Your task to perform on an android device: toggle notifications settings in the gmail app Image 0: 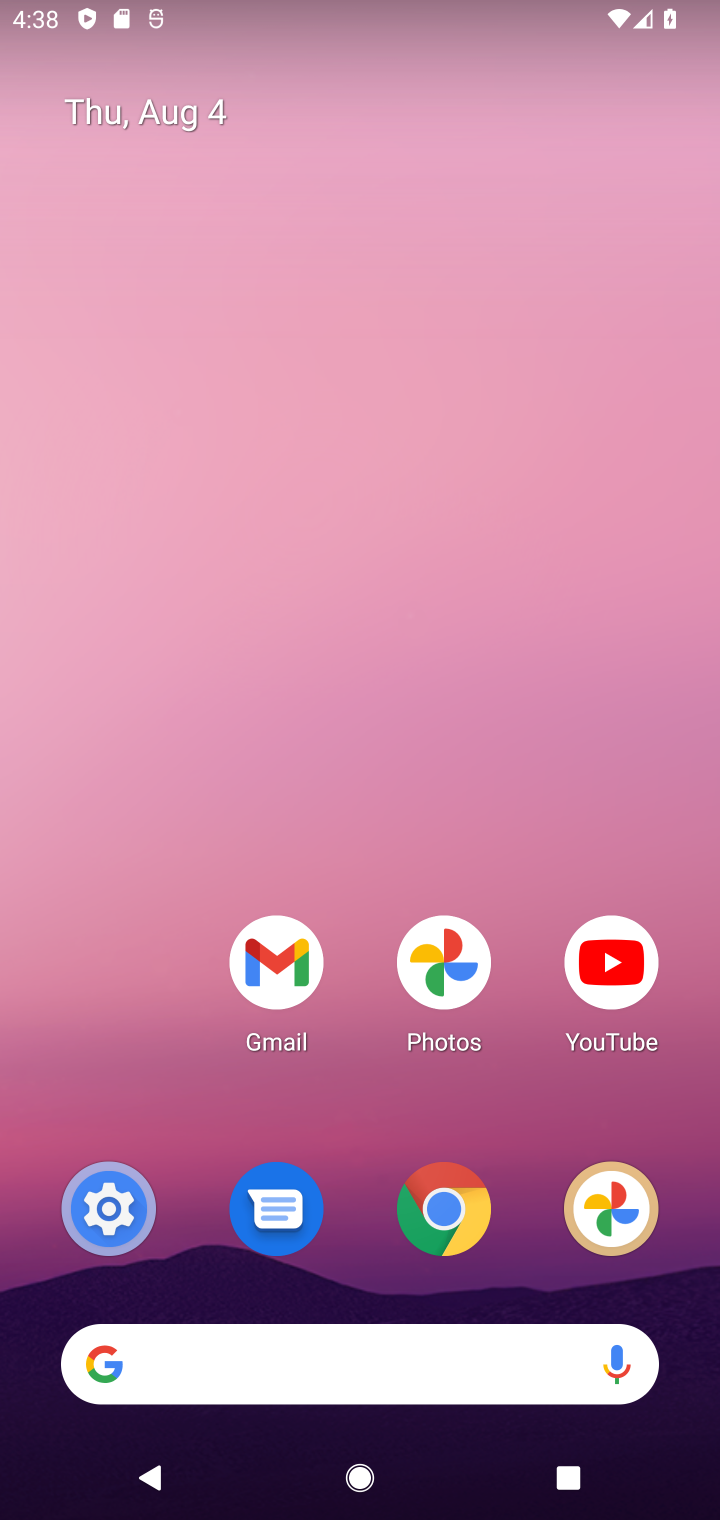
Step 0: click (273, 994)
Your task to perform on an android device: toggle notifications settings in the gmail app Image 1: 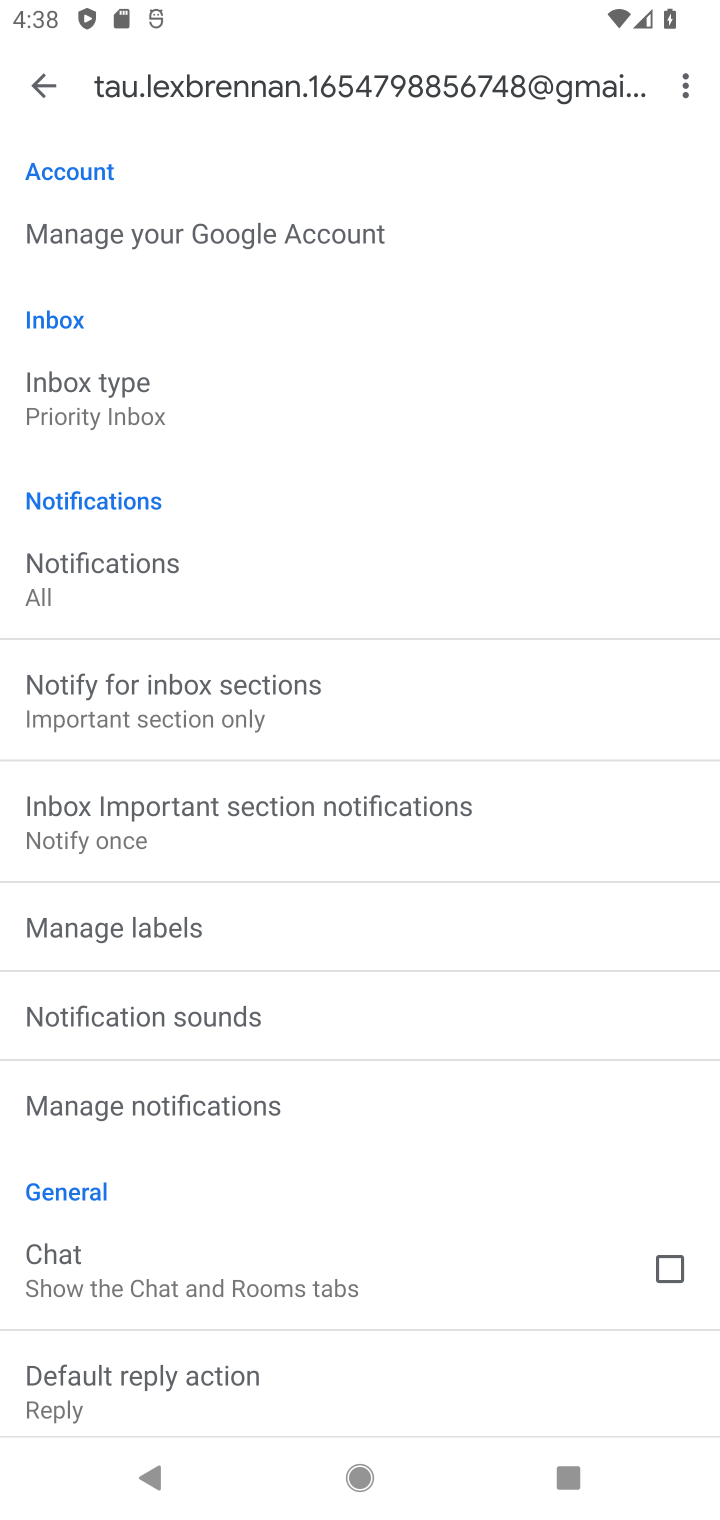
Step 1: click (42, 73)
Your task to perform on an android device: toggle notifications settings in the gmail app Image 2: 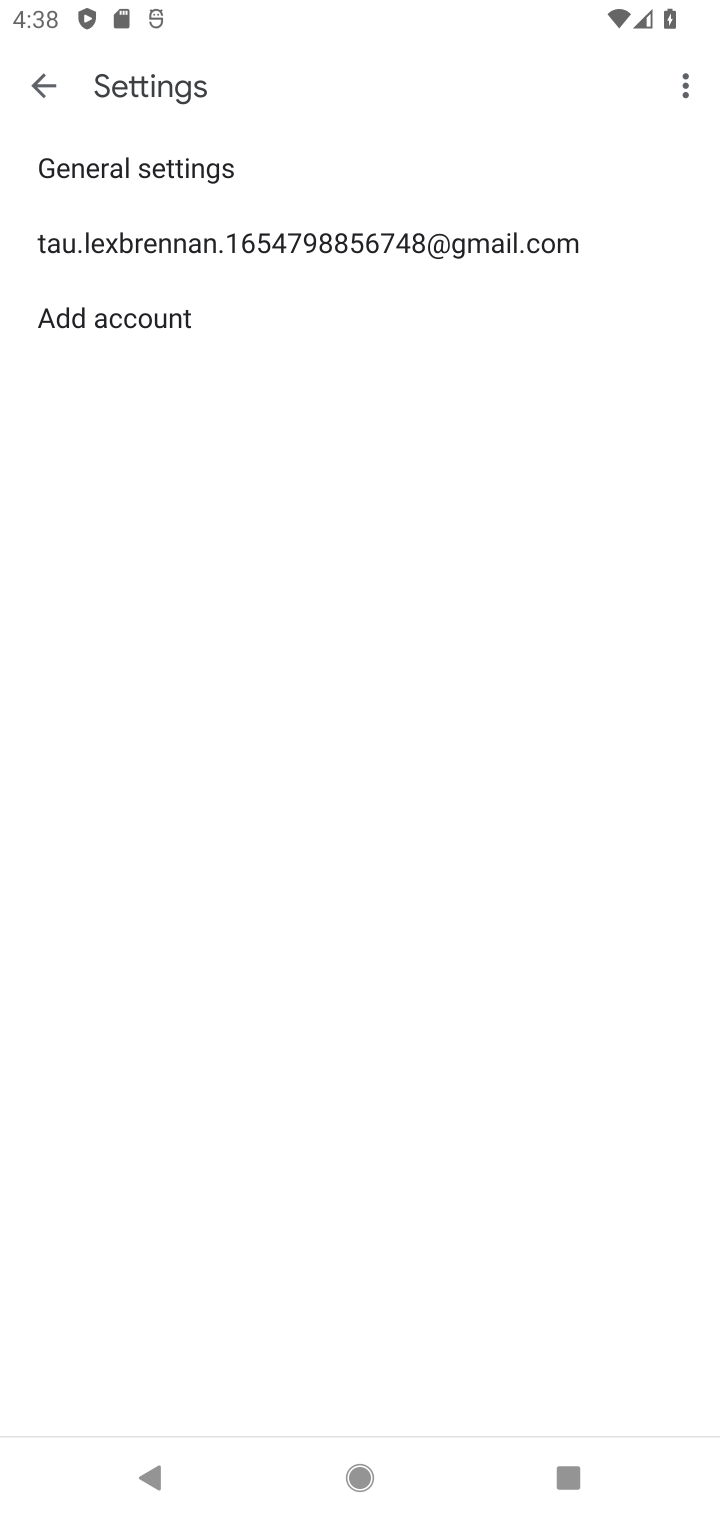
Step 2: click (42, 73)
Your task to perform on an android device: toggle notifications settings in the gmail app Image 3: 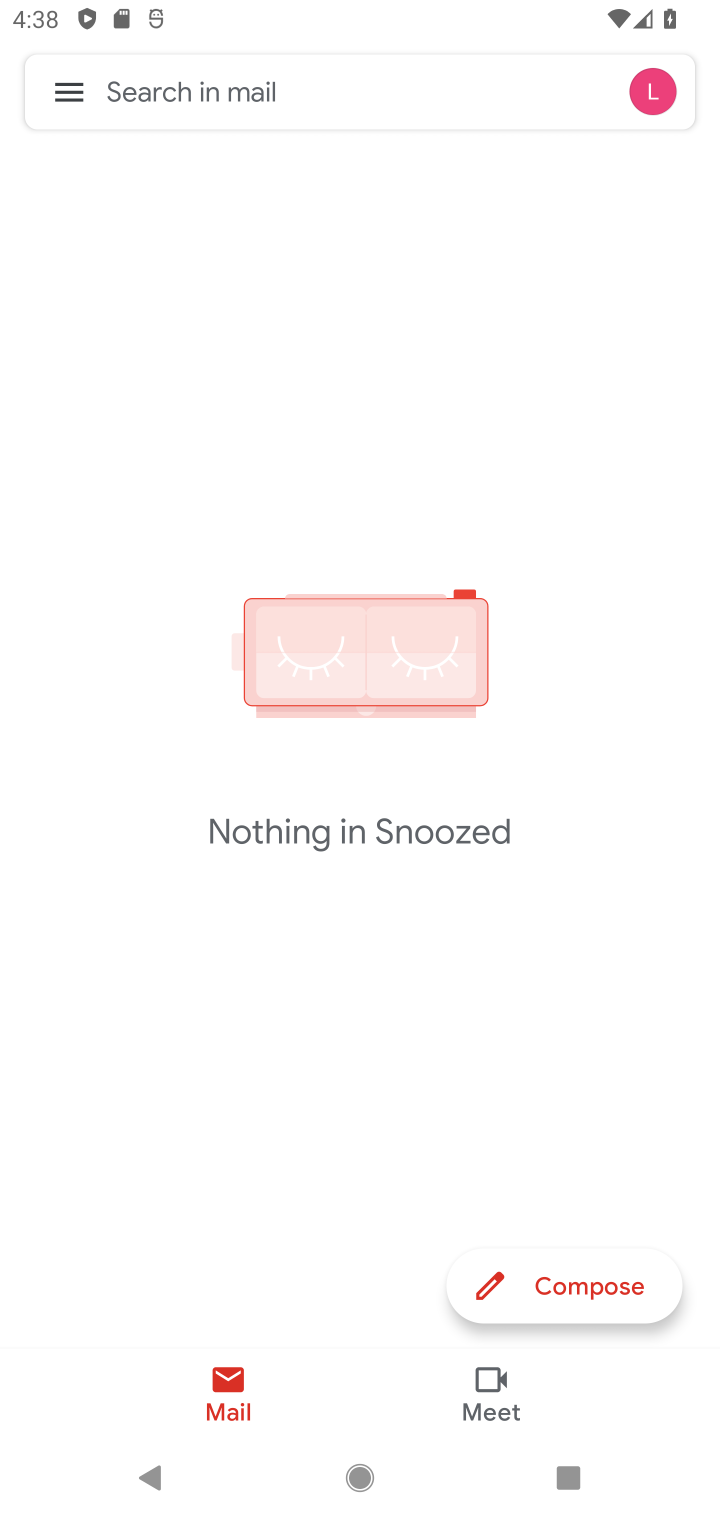
Step 3: click (83, 95)
Your task to perform on an android device: toggle notifications settings in the gmail app Image 4: 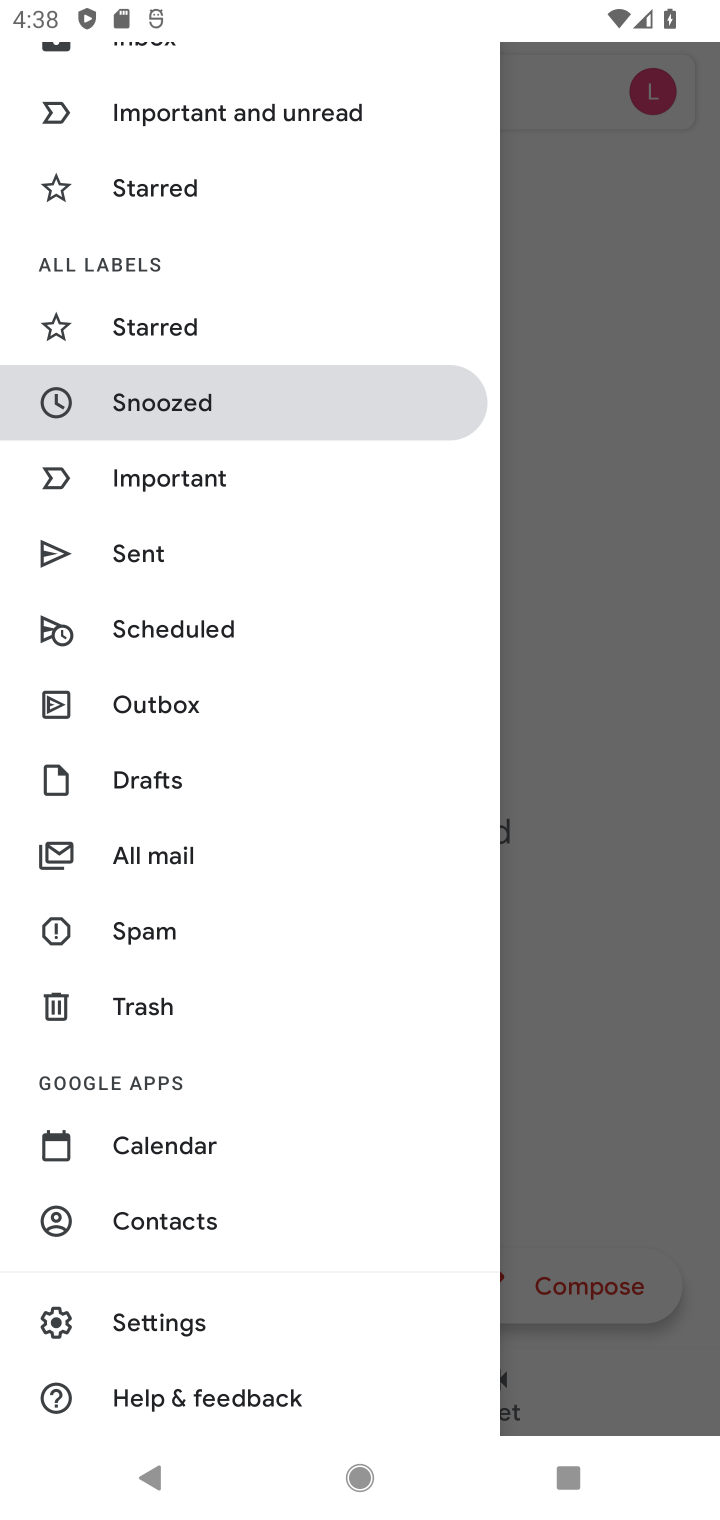
Step 4: click (141, 1333)
Your task to perform on an android device: toggle notifications settings in the gmail app Image 5: 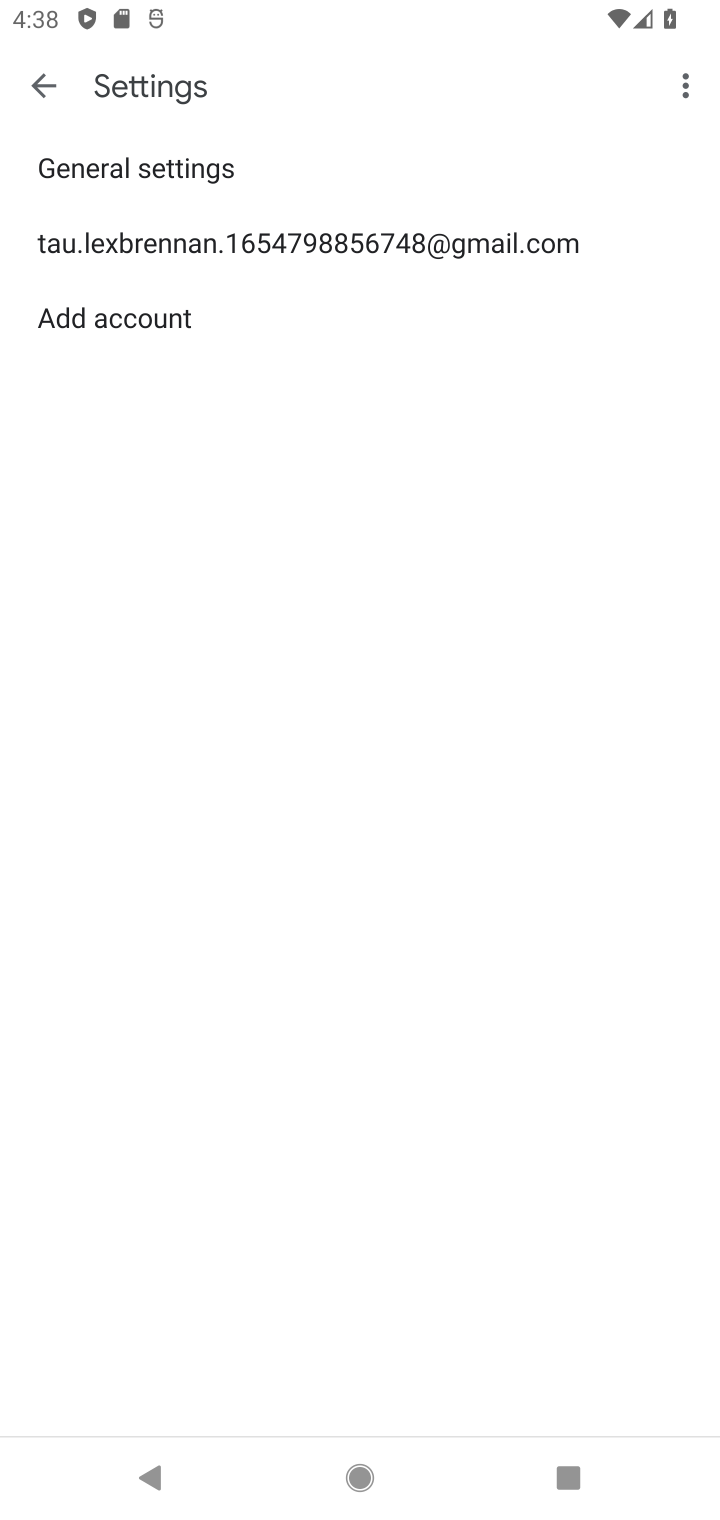
Step 5: click (214, 235)
Your task to perform on an android device: toggle notifications settings in the gmail app Image 6: 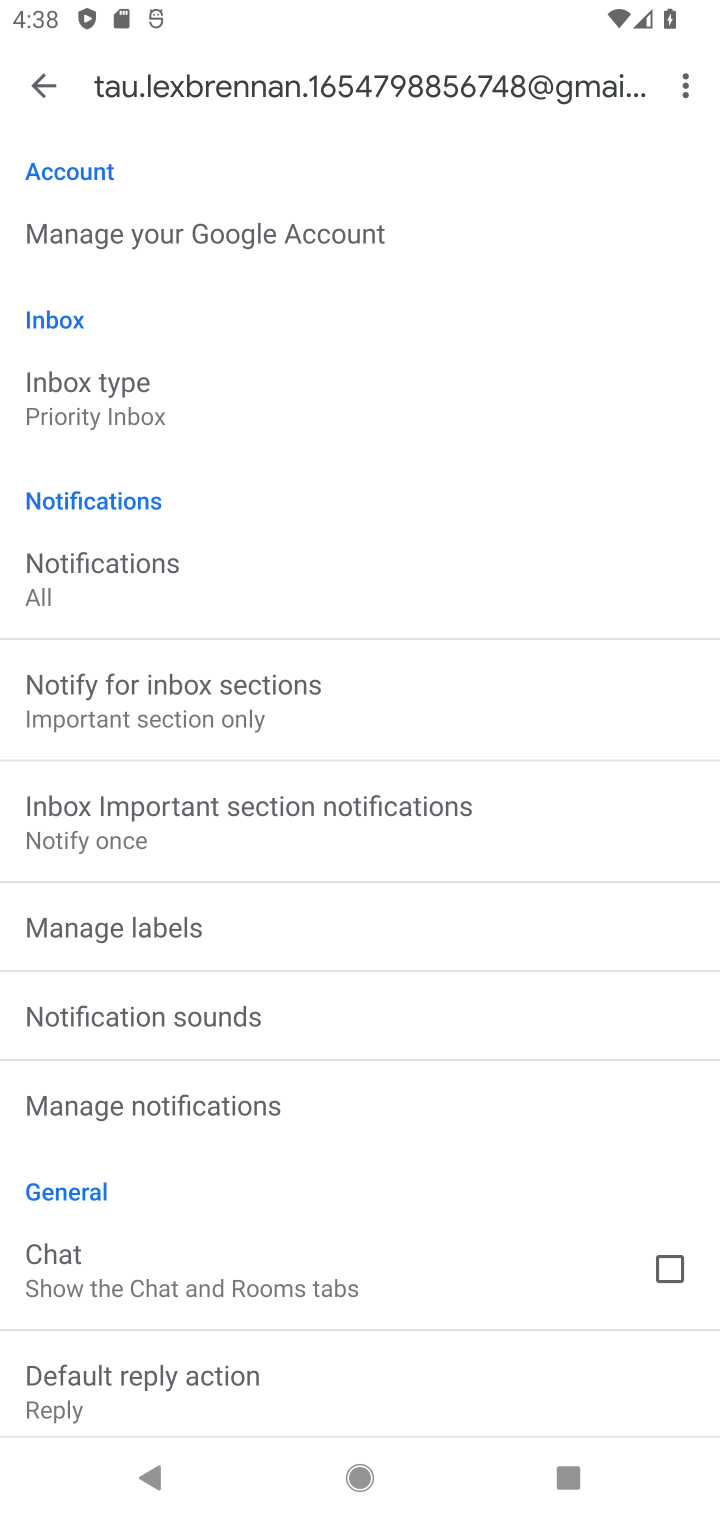
Step 6: click (159, 589)
Your task to perform on an android device: toggle notifications settings in the gmail app Image 7: 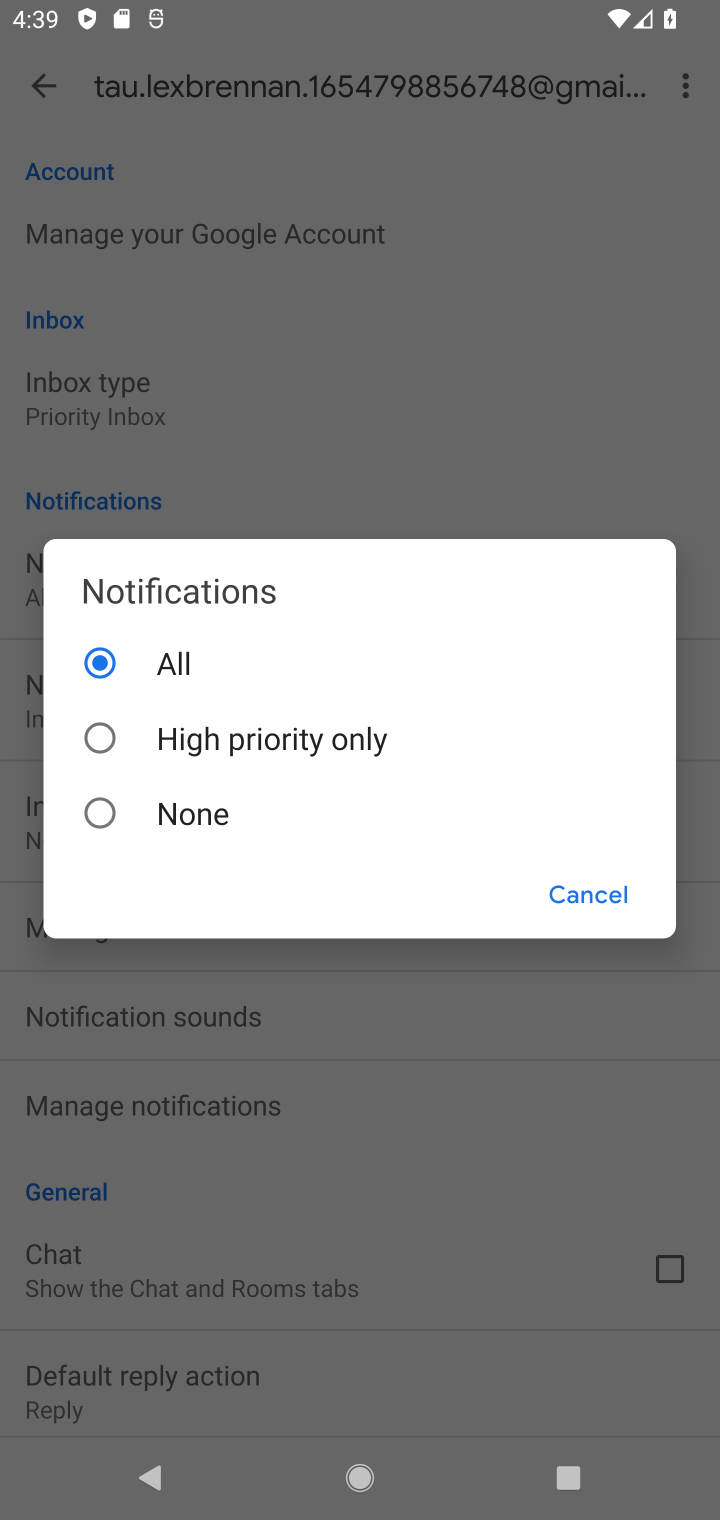
Step 7: click (95, 810)
Your task to perform on an android device: toggle notifications settings in the gmail app Image 8: 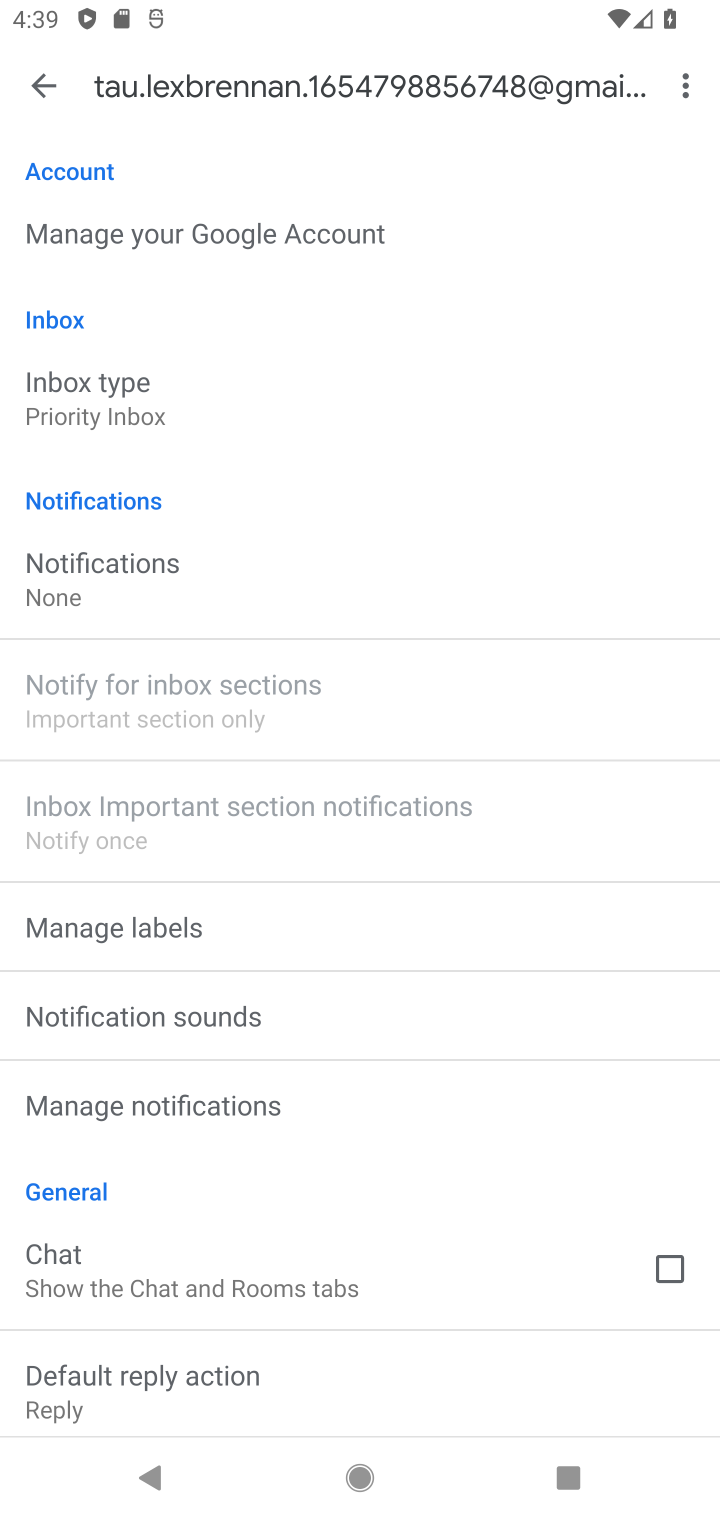
Step 8: task complete